Your task to perform on an android device: Open Reddit.com Image 0: 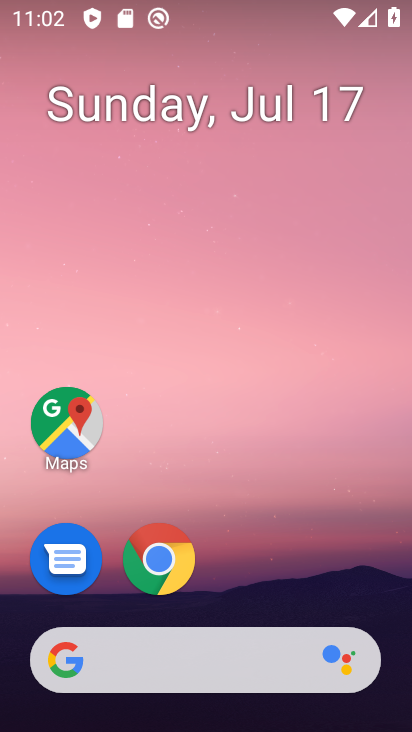
Step 0: click (154, 544)
Your task to perform on an android device: Open Reddit.com Image 1: 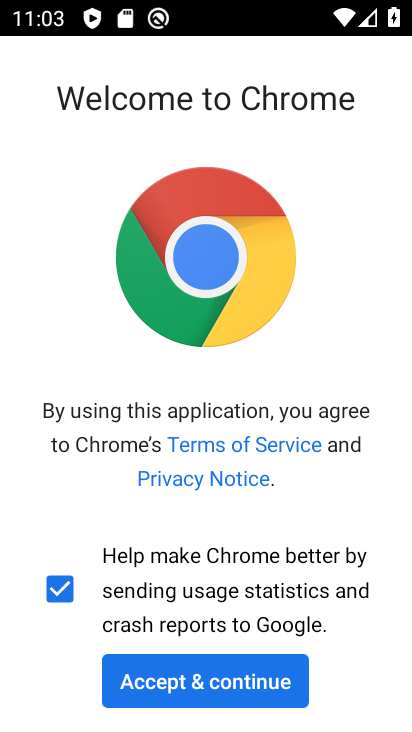
Step 1: click (210, 668)
Your task to perform on an android device: Open Reddit.com Image 2: 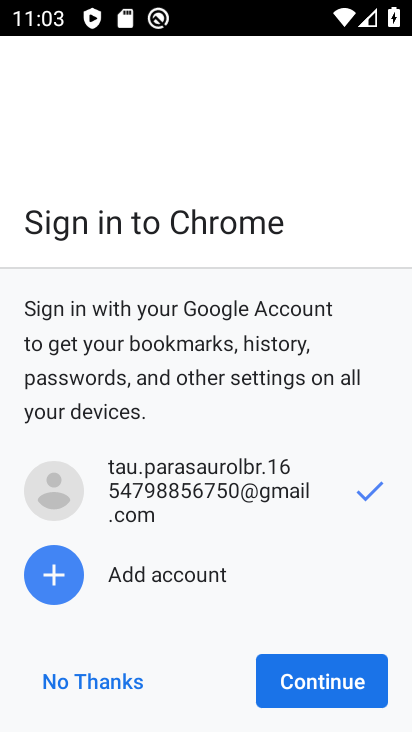
Step 2: click (340, 667)
Your task to perform on an android device: Open Reddit.com Image 3: 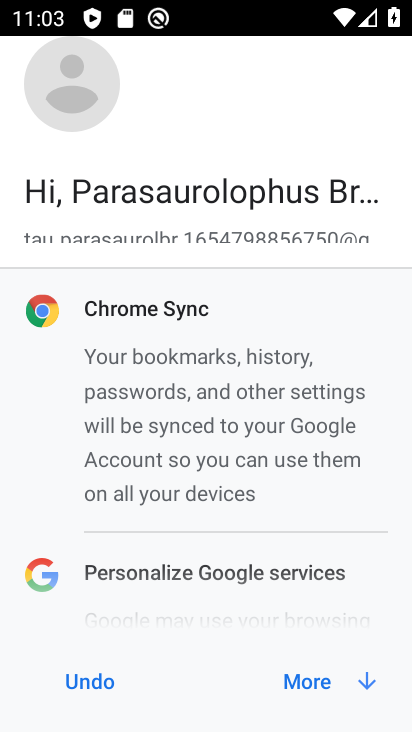
Step 3: click (339, 673)
Your task to perform on an android device: Open Reddit.com Image 4: 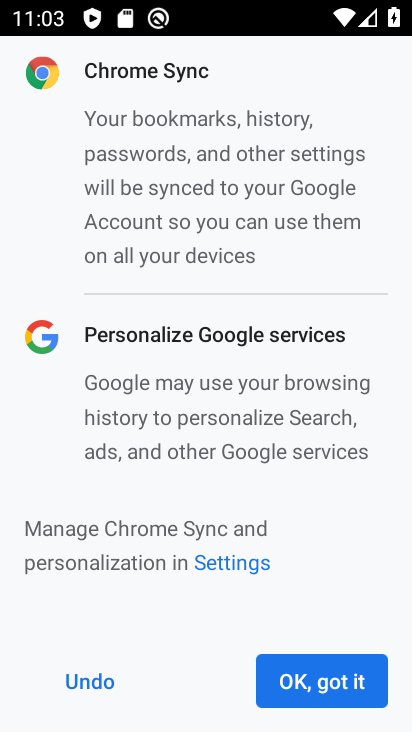
Step 4: click (339, 674)
Your task to perform on an android device: Open Reddit.com Image 5: 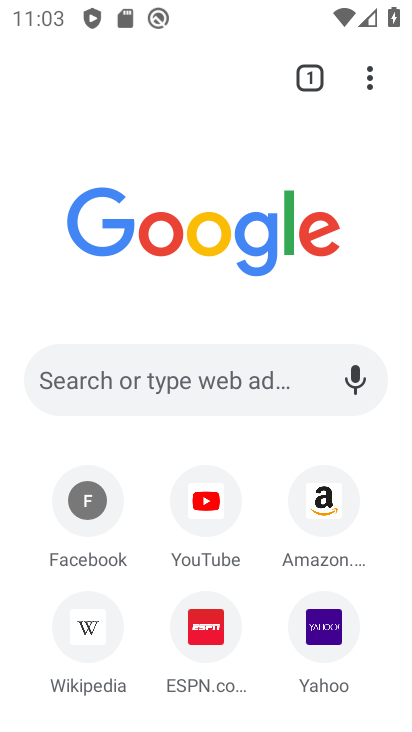
Step 5: click (142, 371)
Your task to perform on an android device: Open Reddit.com Image 6: 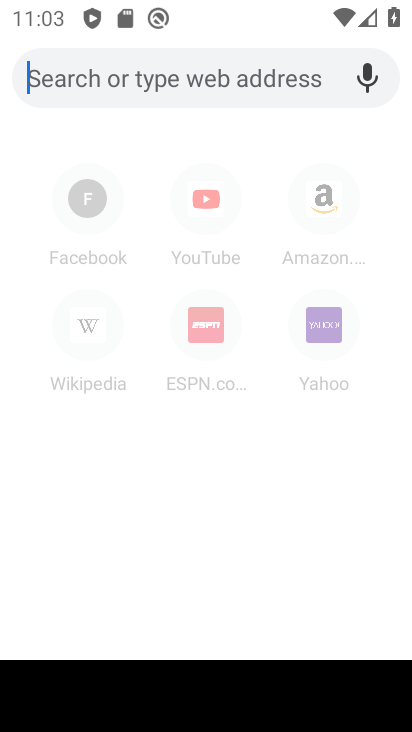
Step 6: type "reddit.com"
Your task to perform on an android device: Open Reddit.com Image 7: 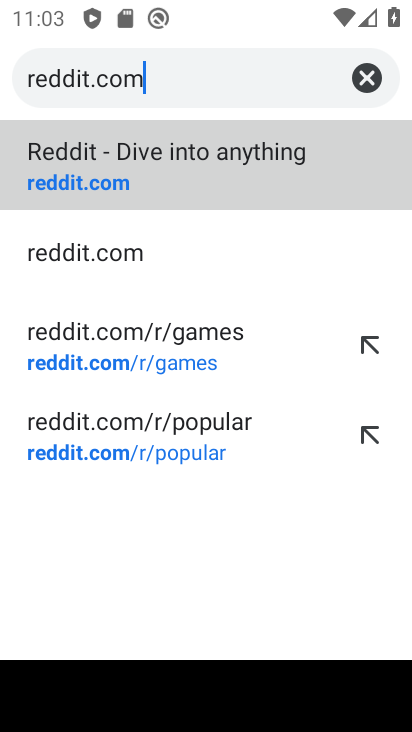
Step 7: click (117, 175)
Your task to perform on an android device: Open Reddit.com Image 8: 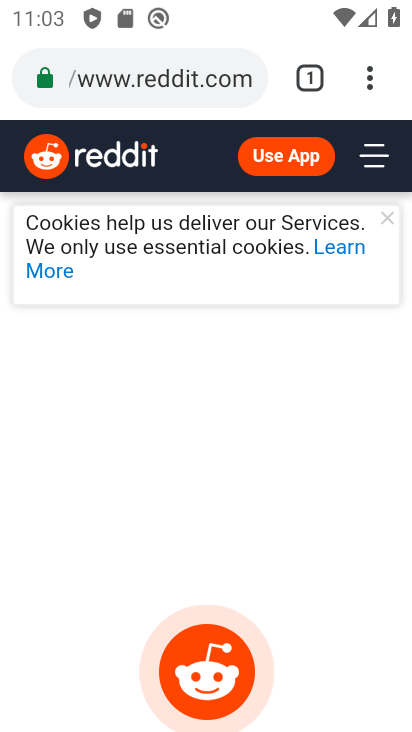
Step 8: task complete